Your task to perform on an android device: Open settings on Google Maps Image 0: 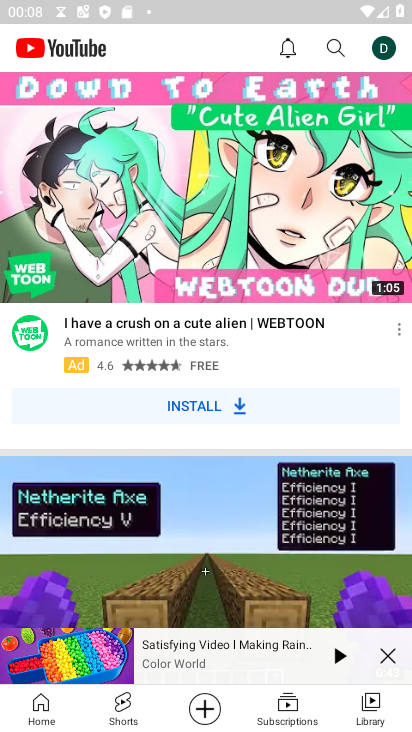
Step 0: press back button
Your task to perform on an android device: Open settings on Google Maps Image 1: 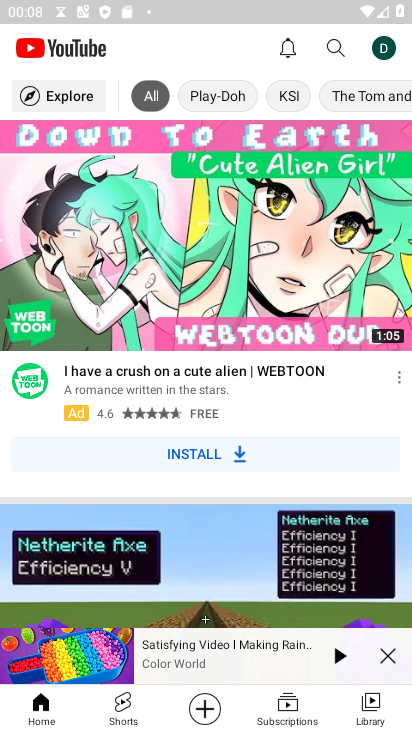
Step 1: press back button
Your task to perform on an android device: Open settings on Google Maps Image 2: 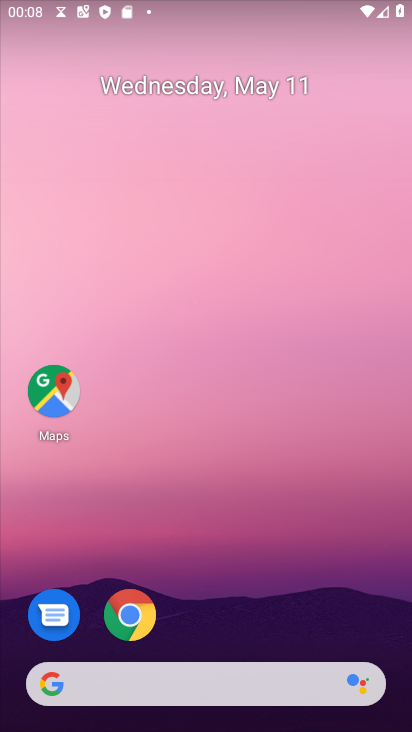
Step 2: click (52, 391)
Your task to perform on an android device: Open settings on Google Maps Image 3: 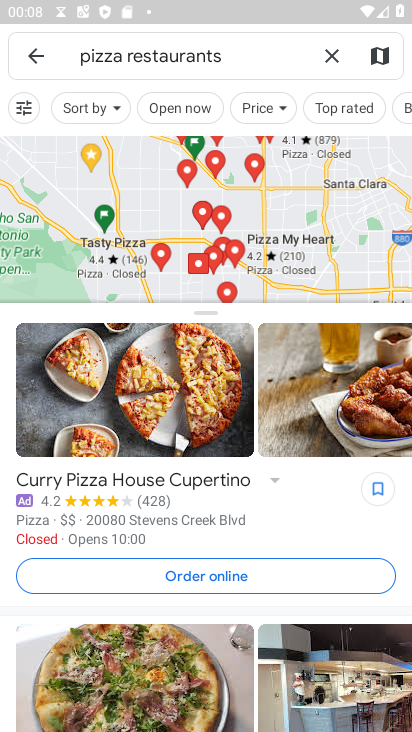
Step 3: click (328, 54)
Your task to perform on an android device: Open settings on Google Maps Image 4: 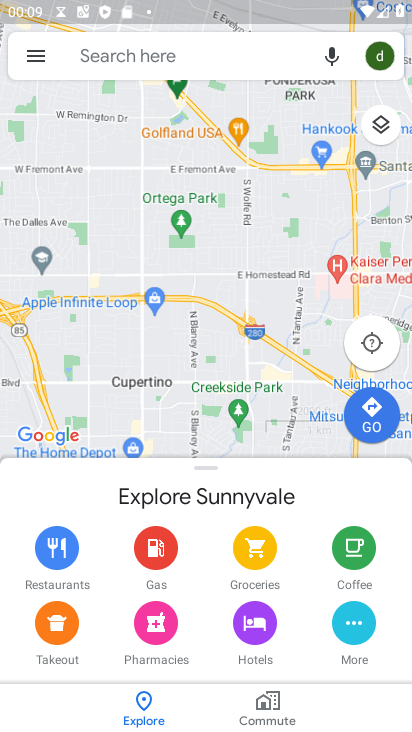
Step 4: click (36, 55)
Your task to perform on an android device: Open settings on Google Maps Image 5: 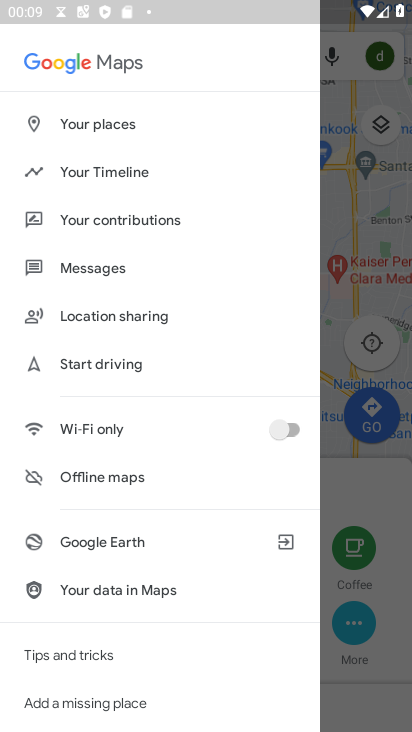
Step 5: drag from (86, 457) to (144, 357)
Your task to perform on an android device: Open settings on Google Maps Image 6: 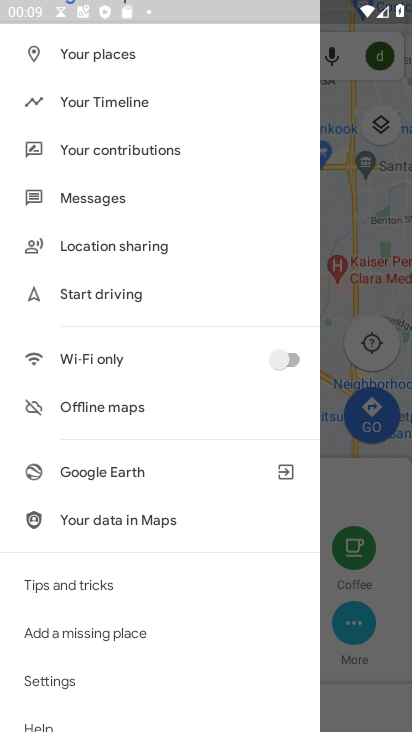
Step 6: drag from (127, 594) to (145, 488)
Your task to perform on an android device: Open settings on Google Maps Image 7: 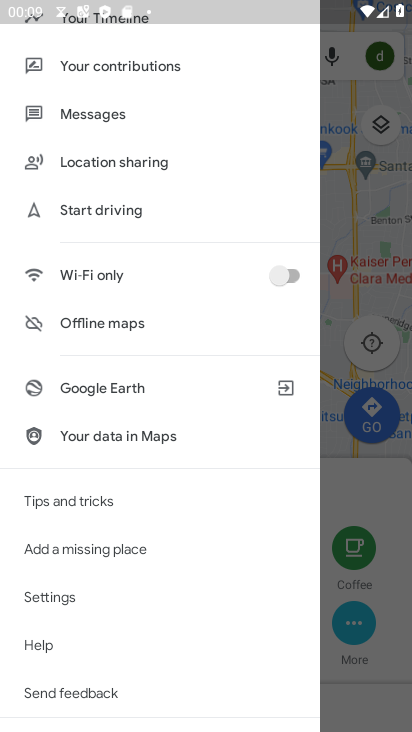
Step 7: click (59, 601)
Your task to perform on an android device: Open settings on Google Maps Image 8: 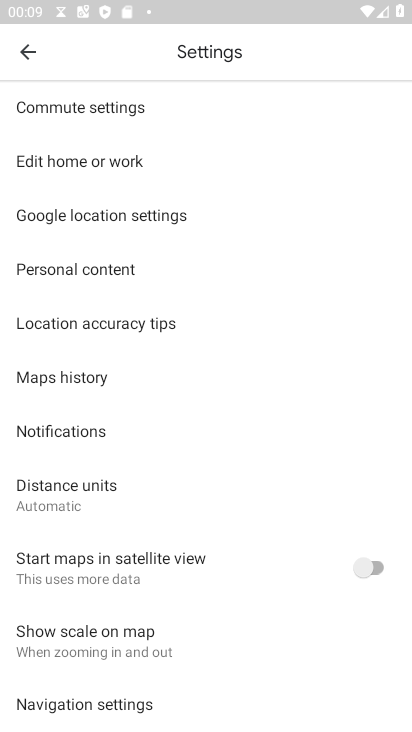
Step 8: task complete